Your task to perform on an android device: turn on showing notifications on the lock screen Image 0: 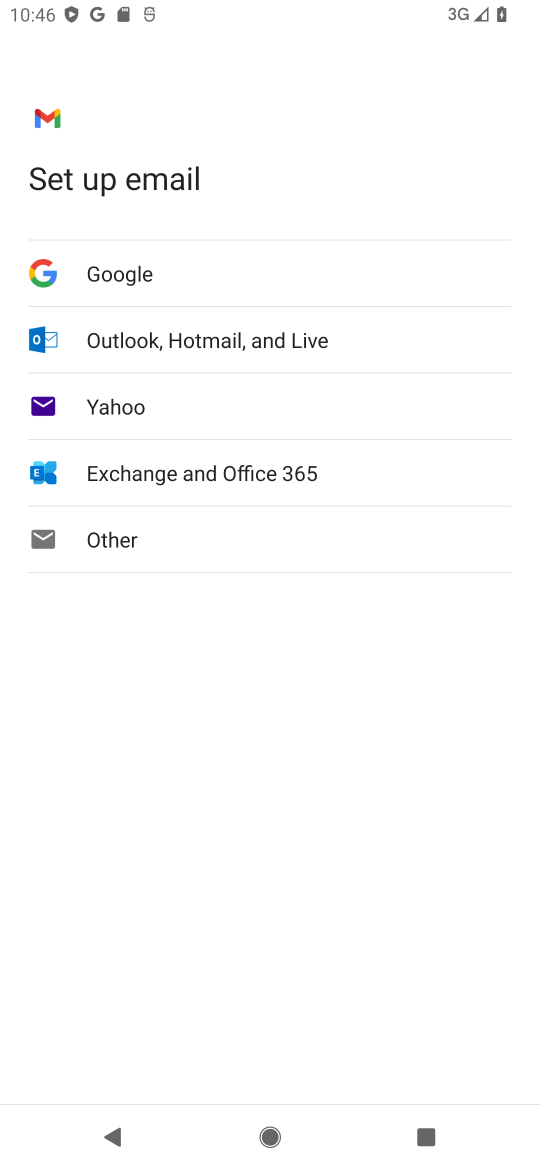
Step 0: press home button
Your task to perform on an android device: turn on showing notifications on the lock screen Image 1: 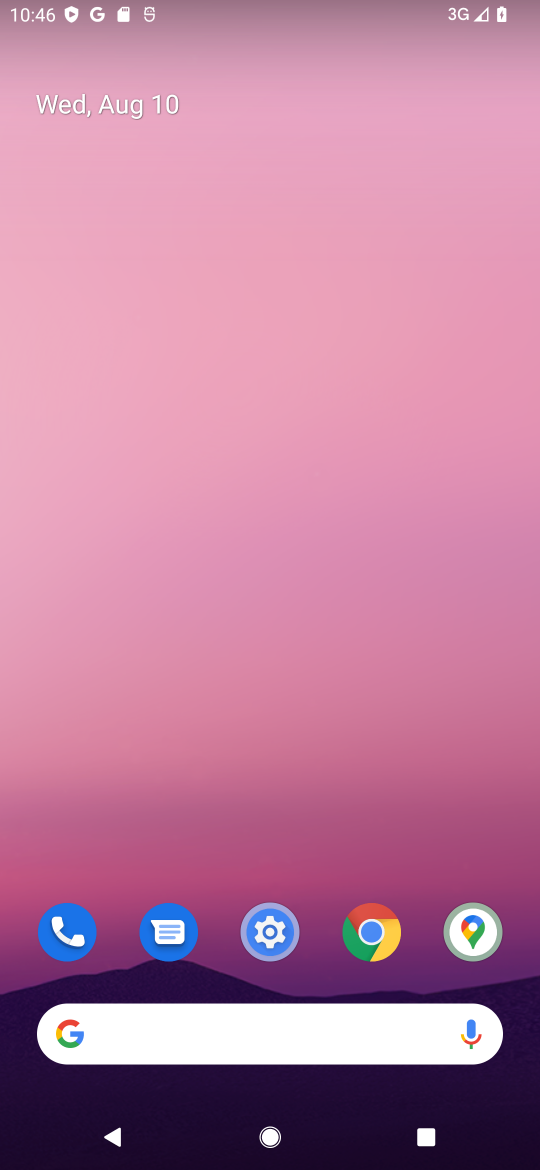
Step 1: click (267, 919)
Your task to perform on an android device: turn on showing notifications on the lock screen Image 2: 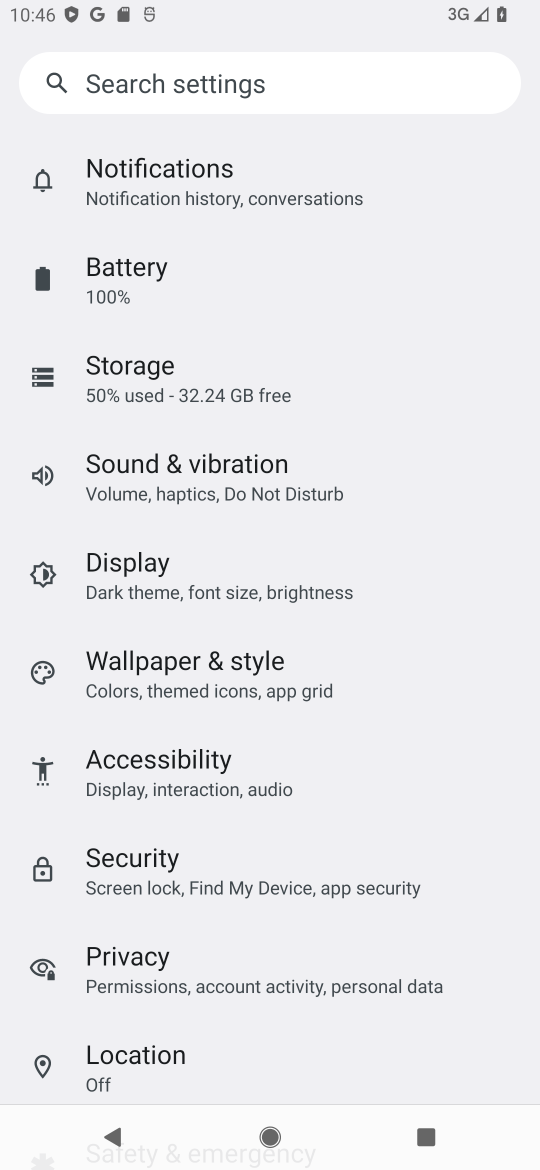
Step 2: click (134, 161)
Your task to perform on an android device: turn on showing notifications on the lock screen Image 3: 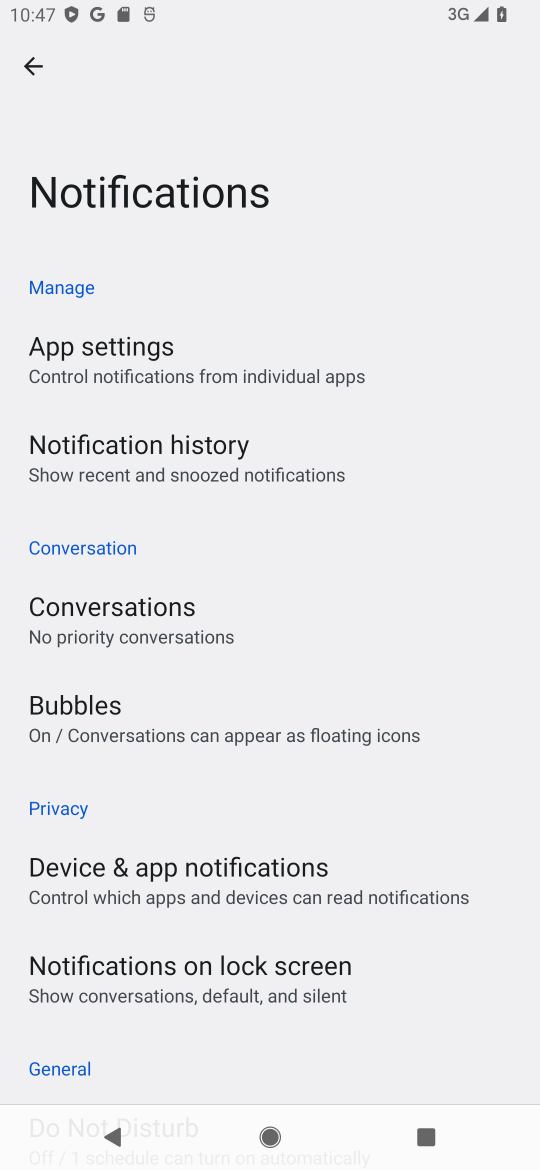
Step 3: click (248, 956)
Your task to perform on an android device: turn on showing notifications on the lock screen Image 4: 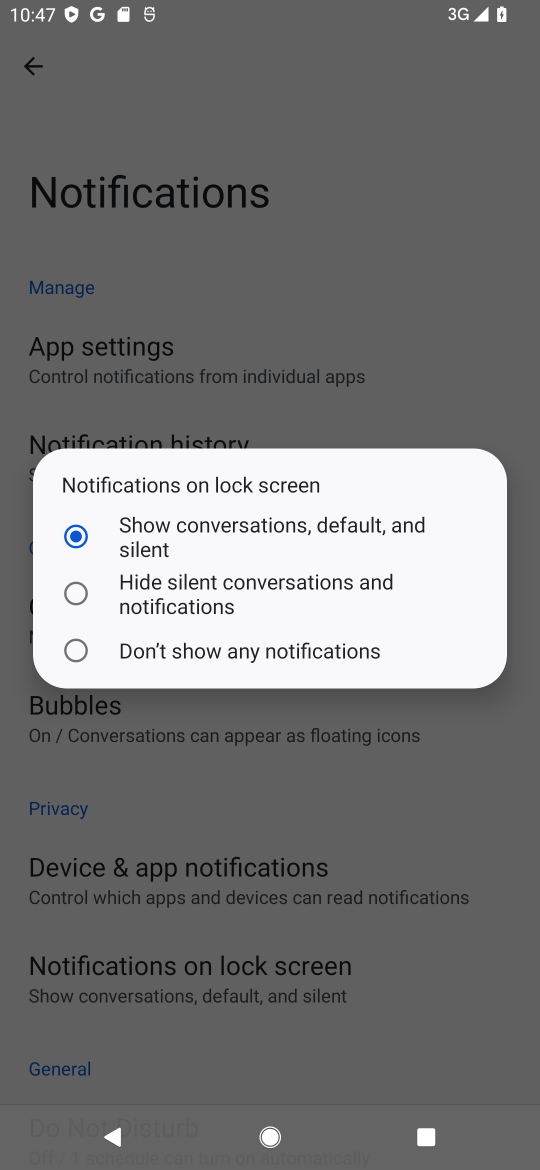
Step 4: task complete